Your task to perform on an android device: search for starred emails in the gmail app Image 0: 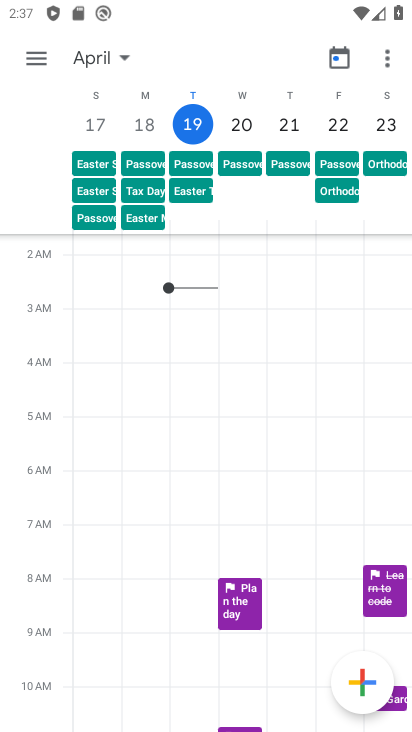
Step 0: press home button
Your task to perform on an android device: search for starred emails in the gmail app Image 1: 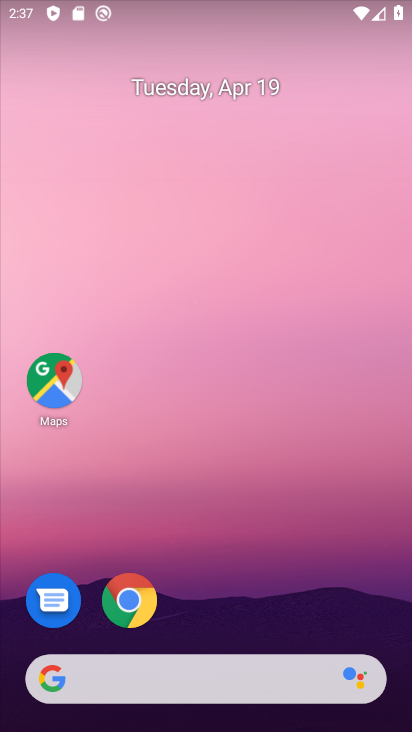
Step 1: drag from (333, 608) to (317, 154)
Your task to perform on an android device: search for starred emails in the gmail app Image 2: 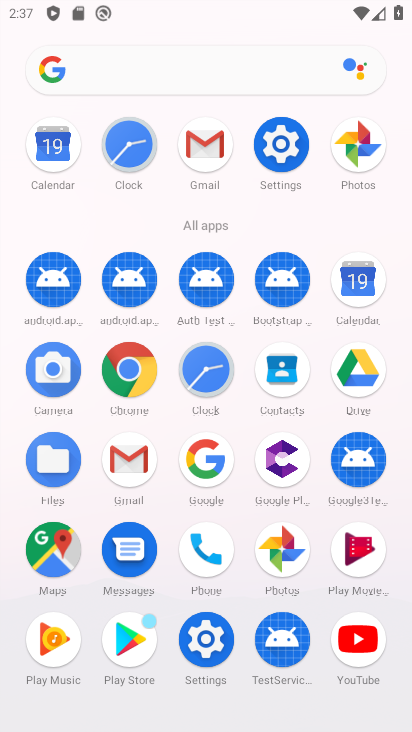
Step 2: click (128, 460)
Your task to perform on an android device: search for starred emails in the gmail app Image 3: 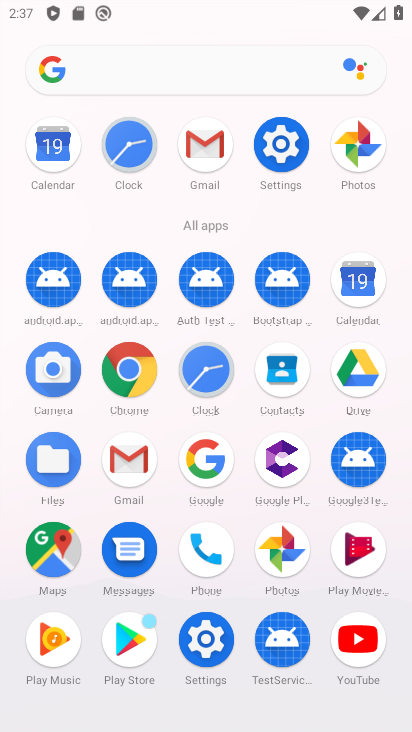
Step 3: click (128, 460)
Your task to perform on an android device: search for starred emails in the gmail app Image 4: 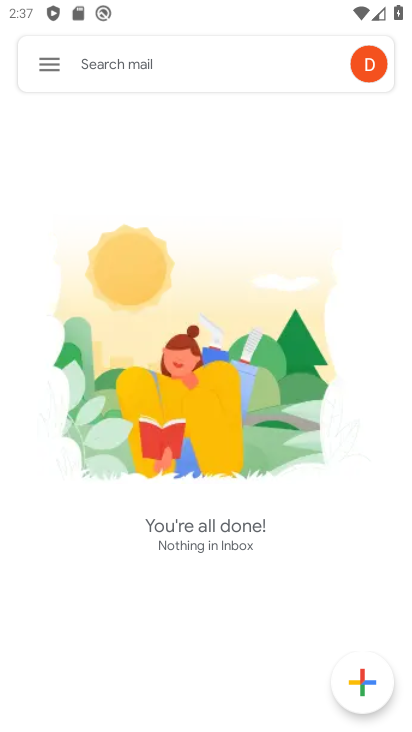
Step 4: click (49, 61)
Your task to perform on an android device: search for starred emails in the gmail app Image 5: 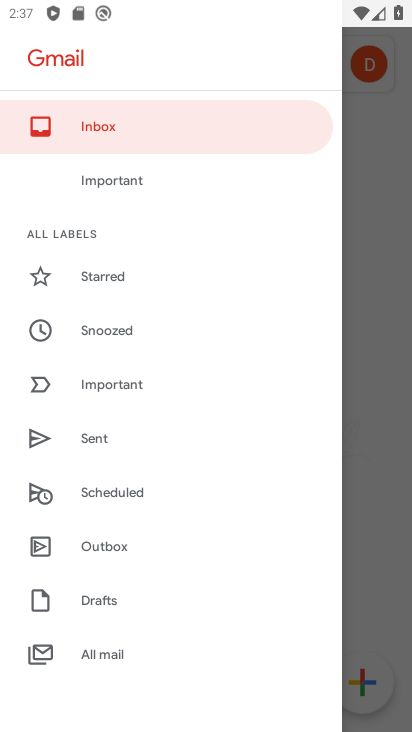
Step 5: click (103, 277)
Your task to perform on an android device: search for starred emails in the gmail app Image 6: 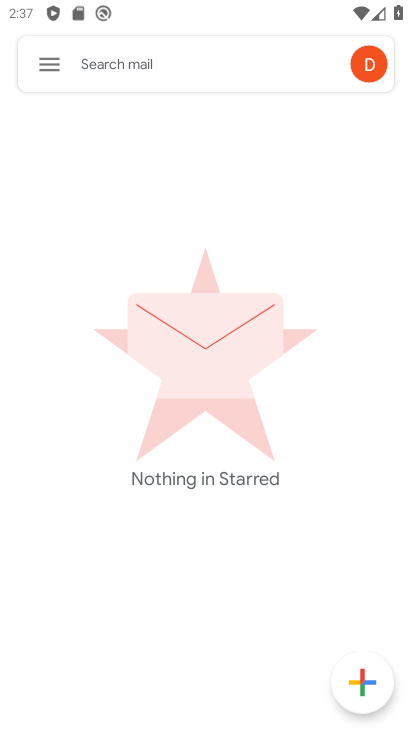
Step 6: task complete